Your task to perform on an android device: Open location settings Image 0: 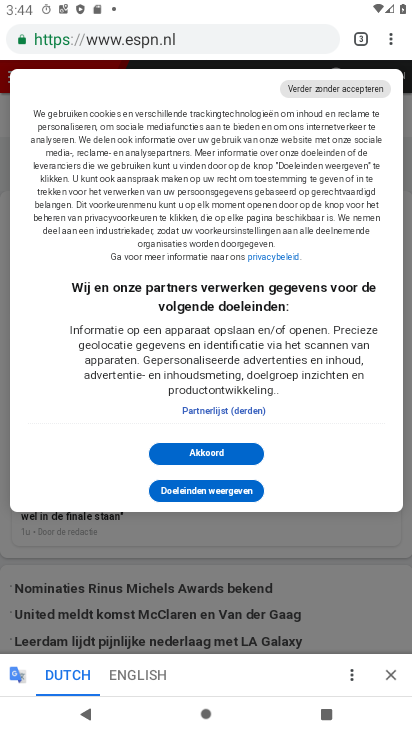
Step 0: press home button
Your task to perform on an android device: Open location settings Image 1: 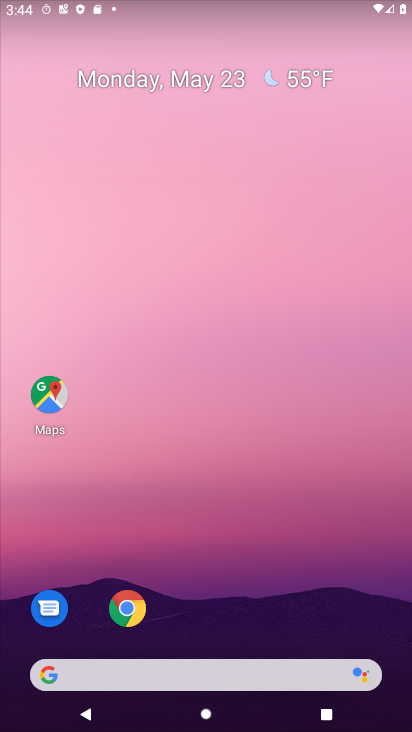
Step 1: drag from (332, 531) to (262, 48)
Your task to perform on an android device: Open location settings Image 2: 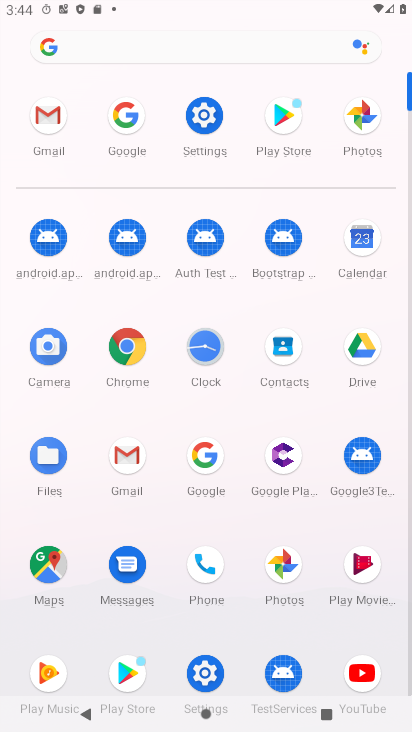
Step 2: click (207, 115)
Your task to perform on an android device: Open location settings Image 3: 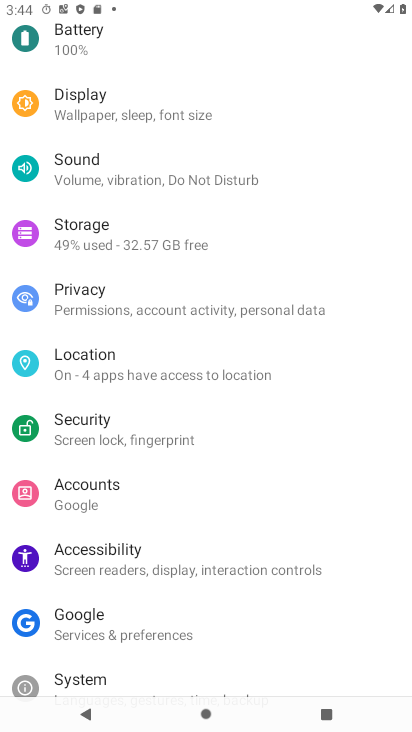
Step 3: click (175, 359)
Your task to perform on an android device: Open location settings Image 4: 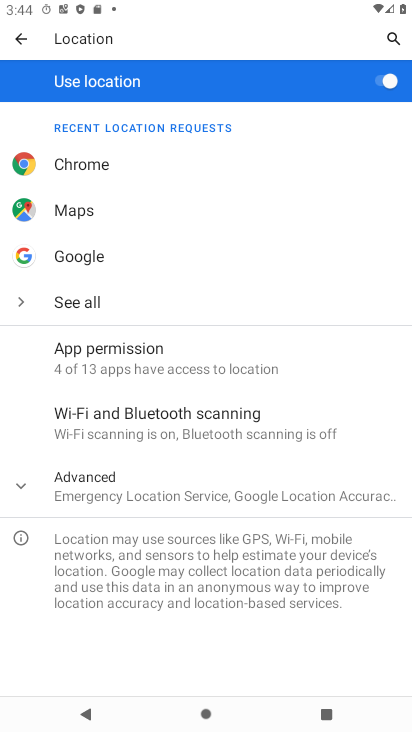
Step 4: task complete